Your task to perform on an android device: uninstall "AliExpress" Image 0: 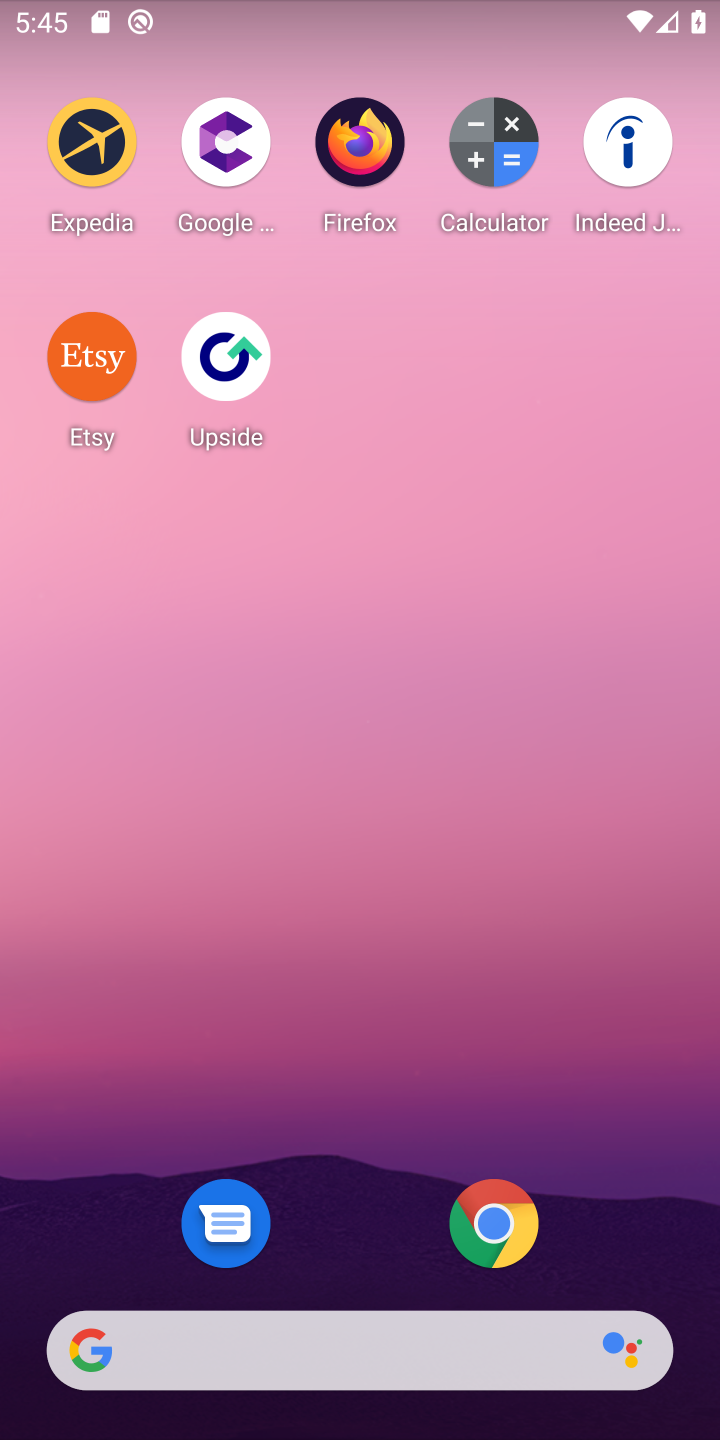
Step 0: drag from (346, 1337) to (566, 101)
Your task to perform on an android device: uninstall "AliExpress" Image 1: 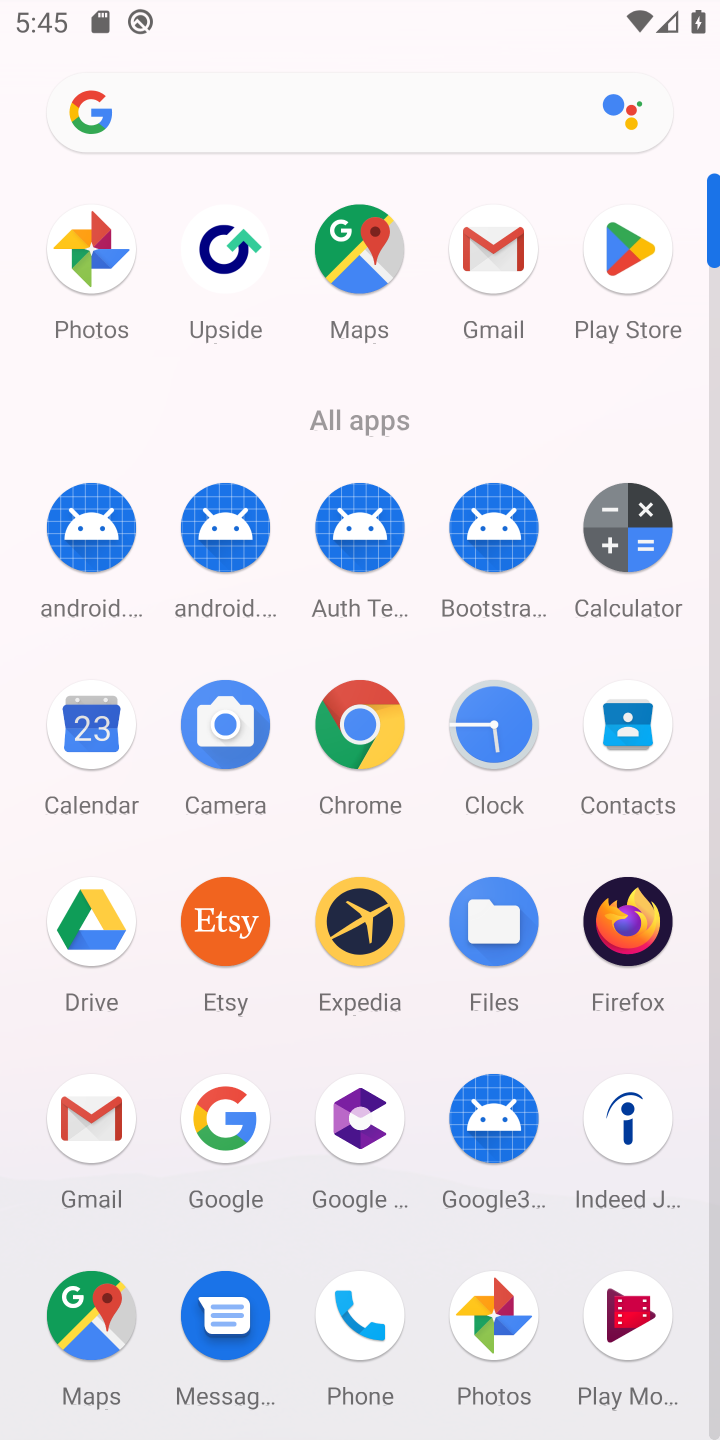
Step 1: click (595, 263)
Your task to perform on an android device: uninstall "AliExpress" Image 2: 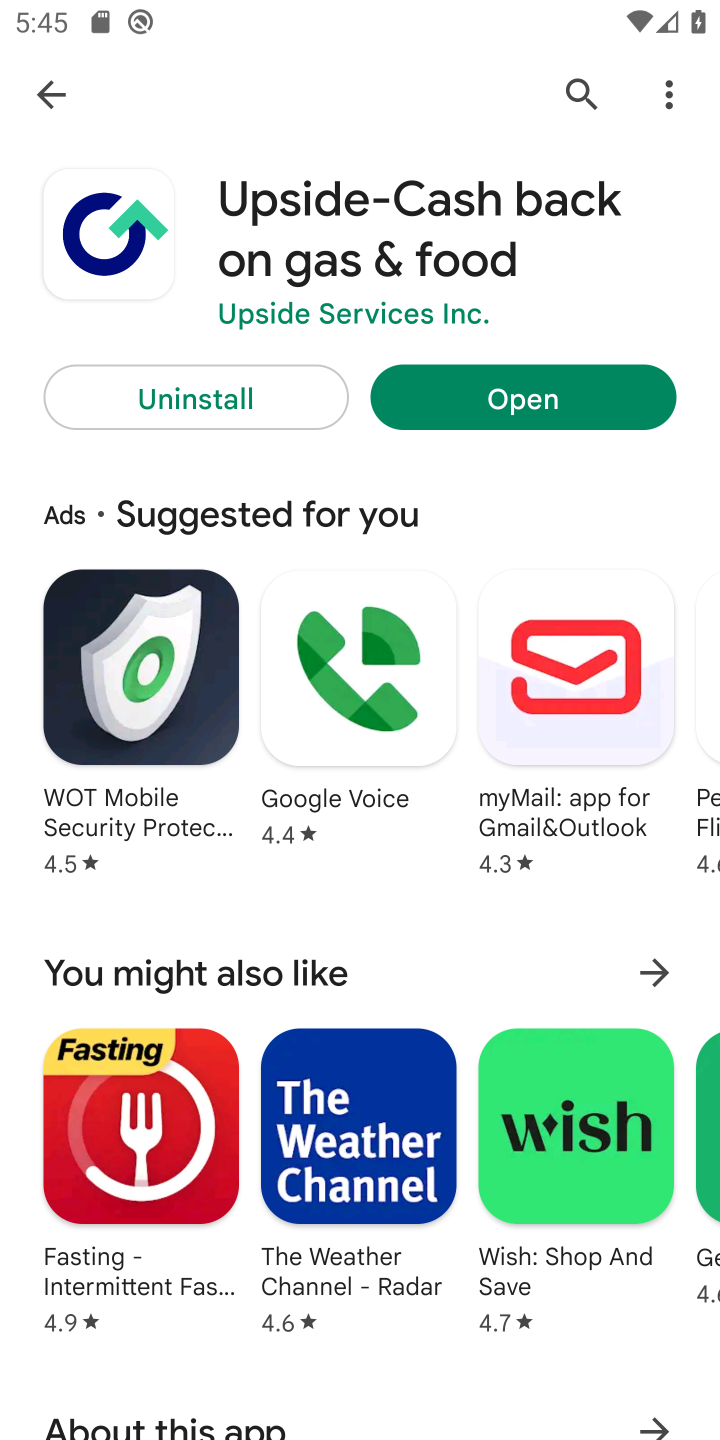
Step 2: click (586, 87)
Your task to perform on an android device: uninstall "AliExpress" Image 3: 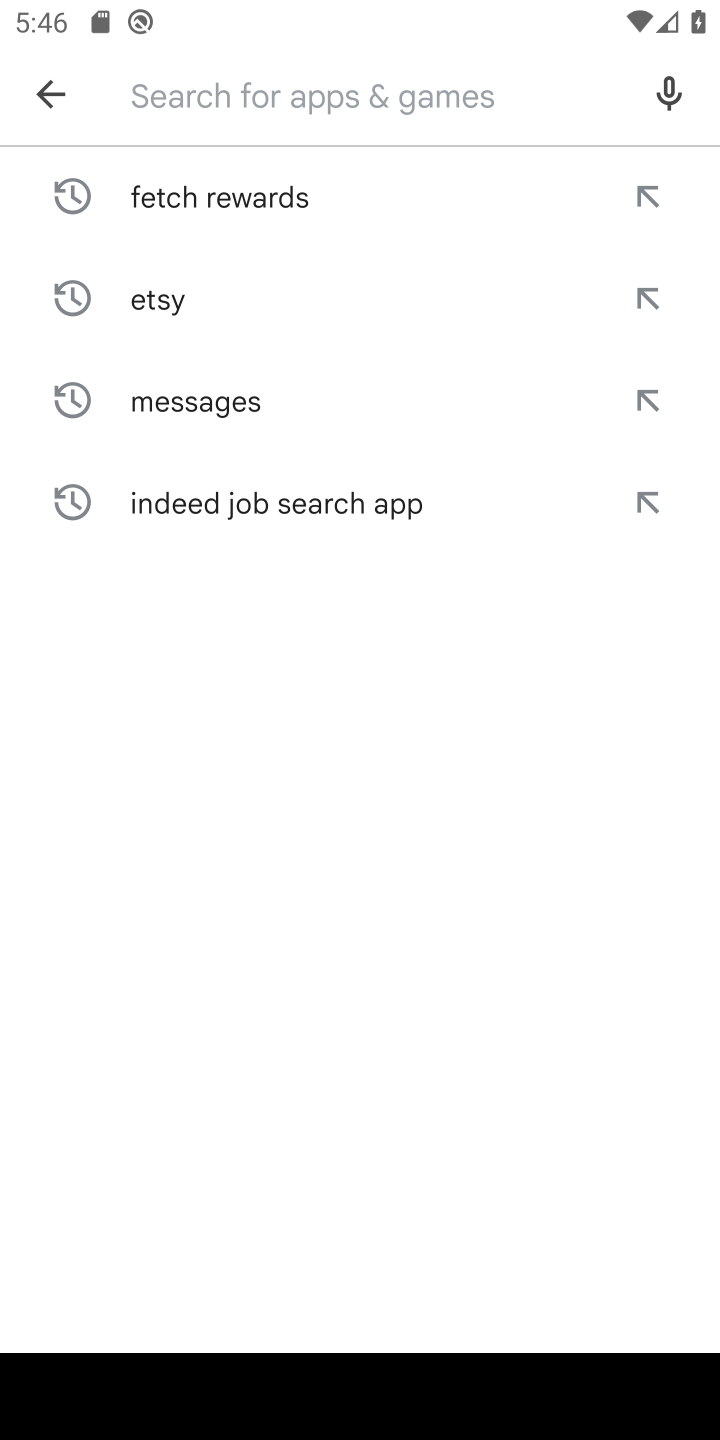
Step 3: type "aliexpress"
Your task to perform on an android device: uninstall "AliExpress" Image 4: 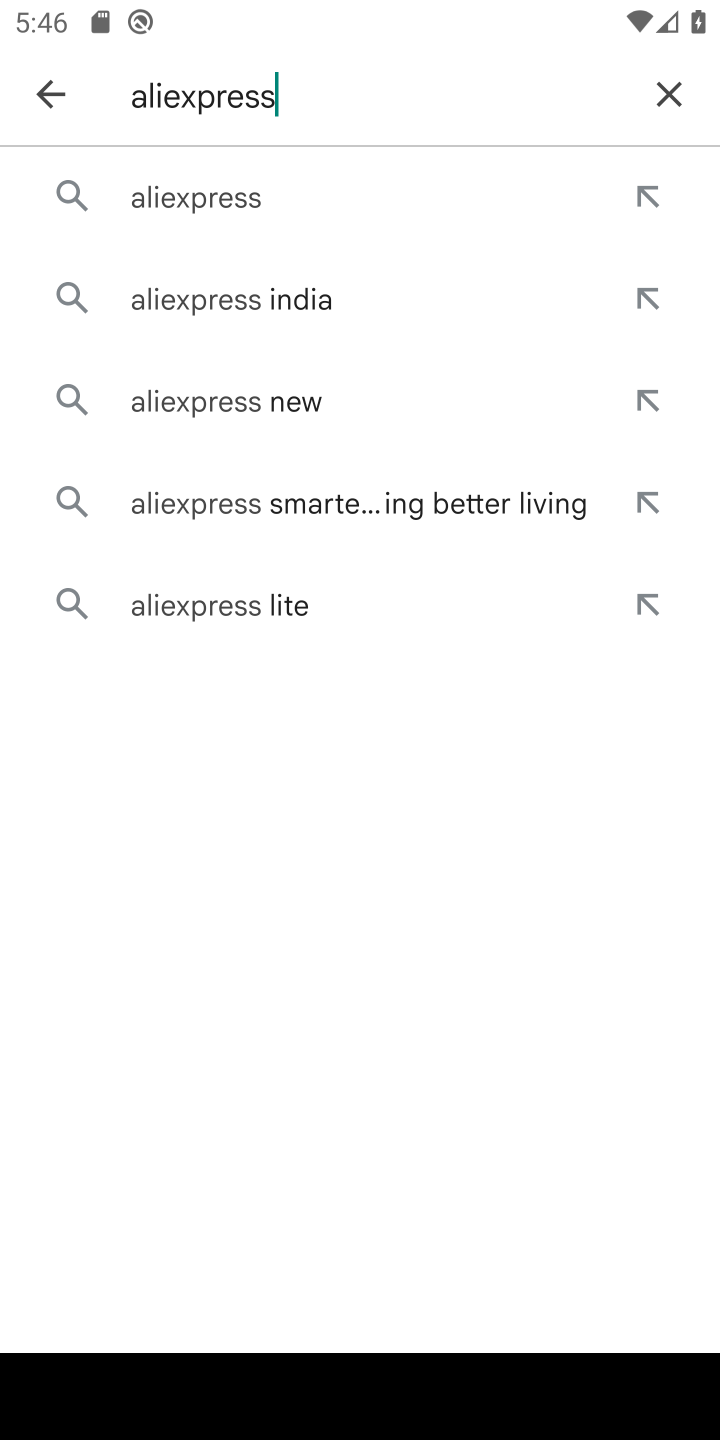
Step 4: click (182, 205)
Your task to perform on an android device: uninstall "AliExpress" Image 5: 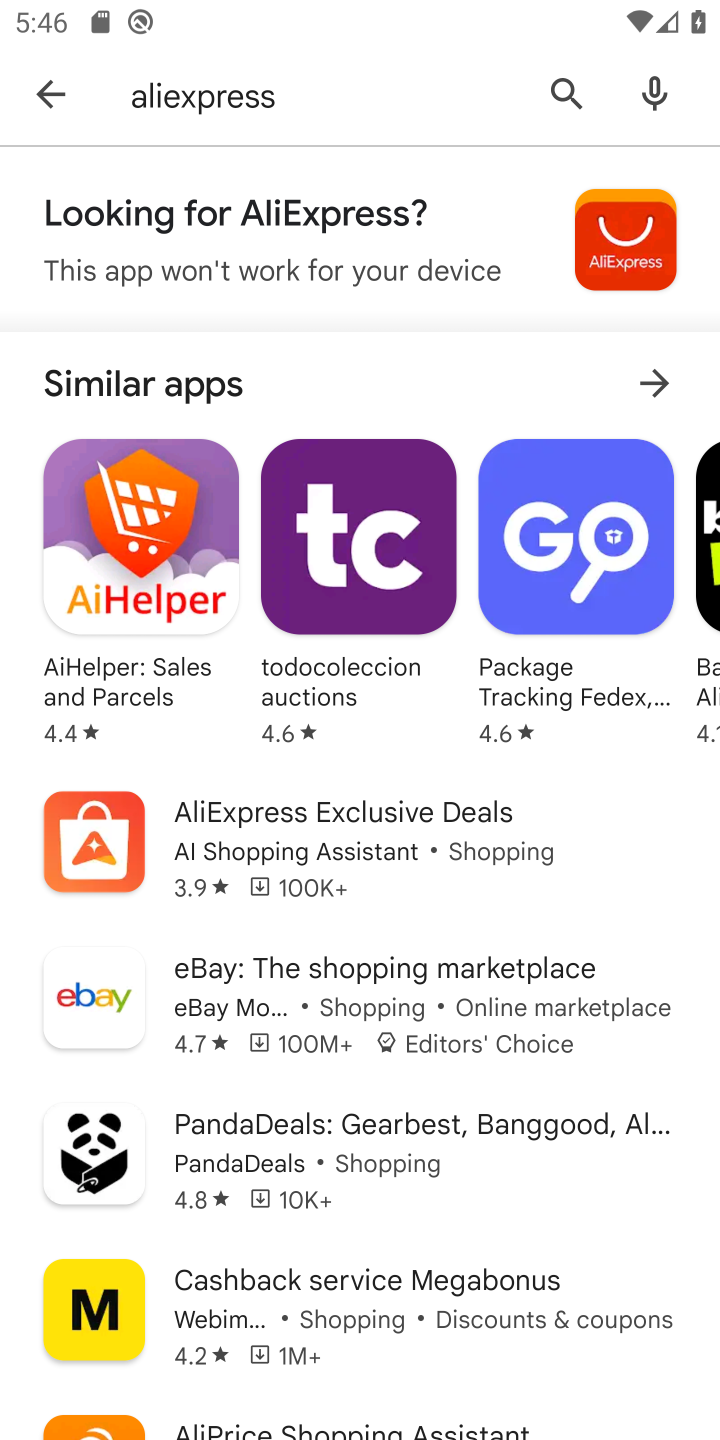
Step 5: click (351, 832)
Your task to perform on an android device: uninstall "AliExpress" Image 6: 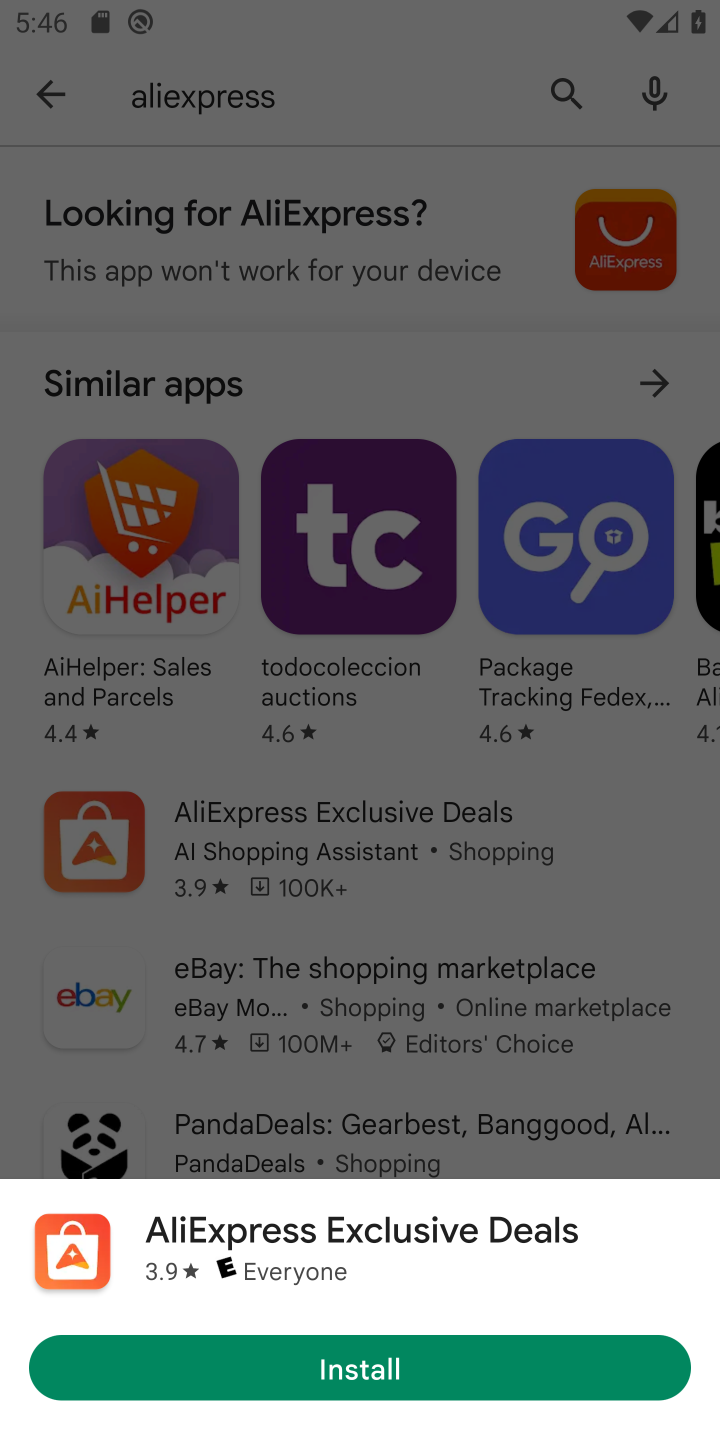
Step 6: task complete